Your task to perform on an android device: Show me popular games on the Play Store Image 0: 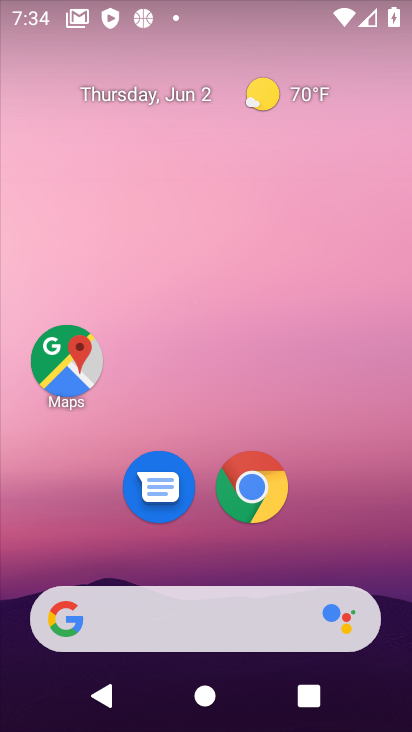
Step 0: drag from (216, 563) to (342, 74)
Your task to perform on an android device: Show me popular games on the Play Store Image 1: 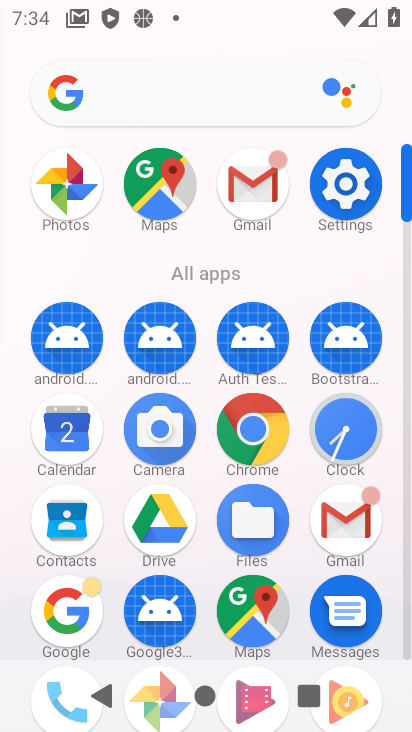
Step 1: drag from (121, 577) to (121, 123)
Your task to perform on an android device: Show me popular games on the Play Store Image 2: 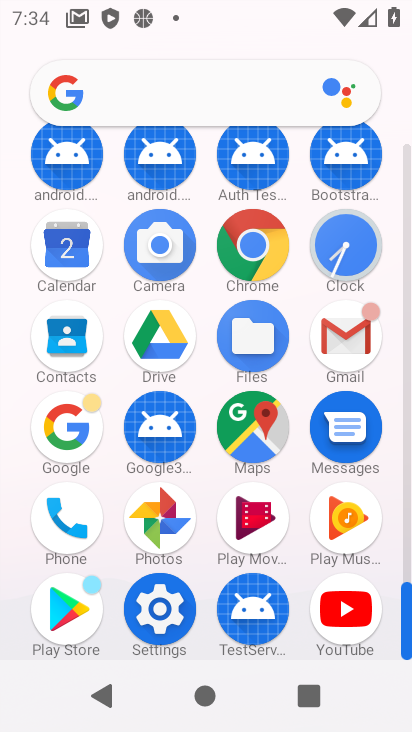
Step 2: click (53, 616)
Your task to perform on an android device: Show me popular games on the Play Store Image 3: 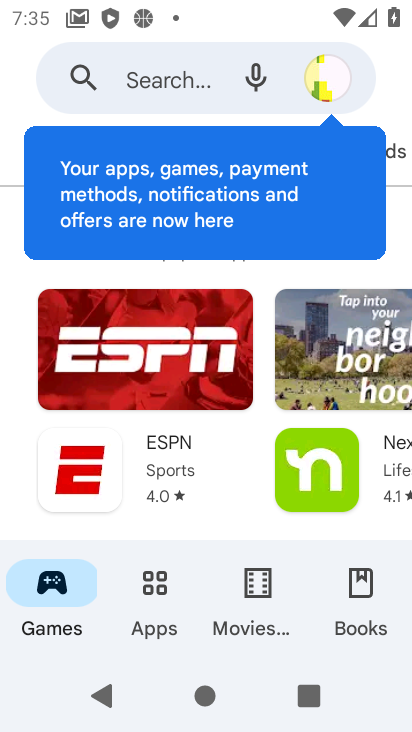
Step 3: click (162, 618)
Your task to perform on an android device: Show me popular games on the Play Store Image 4: 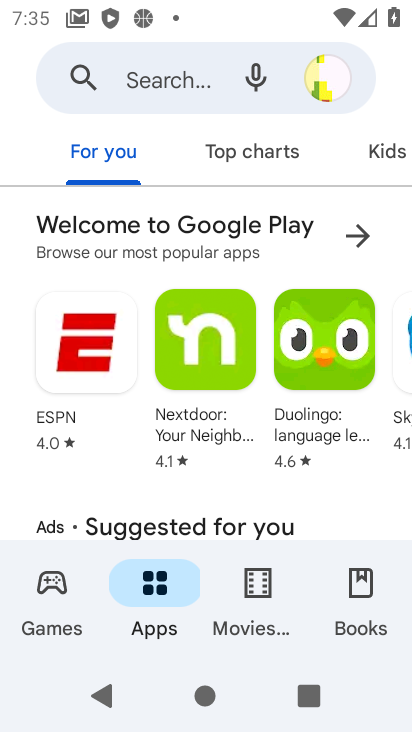
Step 4: drag from (297, 152) to (5, 130)
Your task to perform on an android device: Show me popular games on the Play Store Image 5: 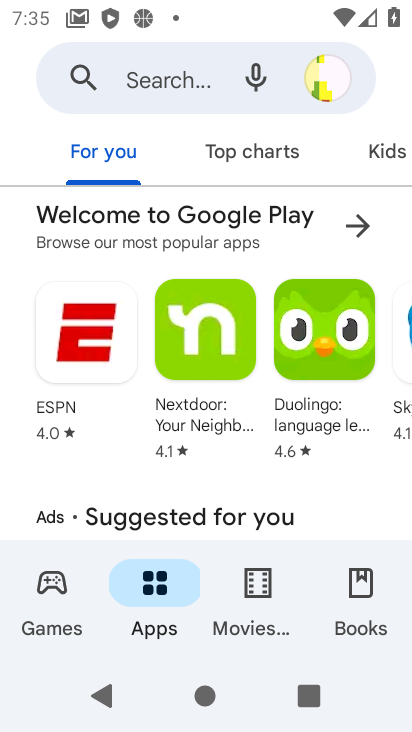
Step 5: click (60, 623)
Your task to perform on an android device: Show me popular games on the Play Store Image 6: 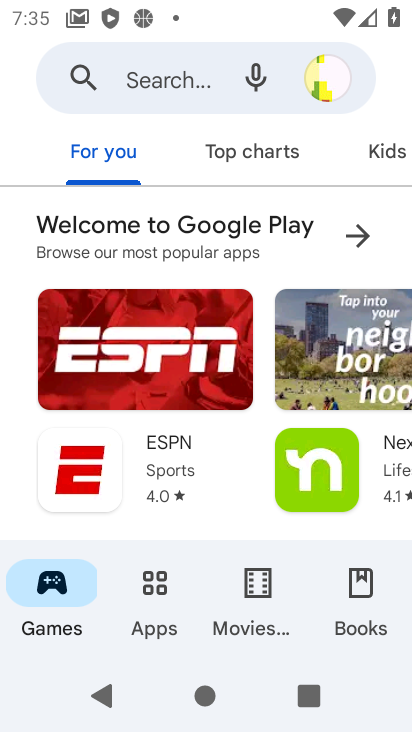
Step 6: drag from (124, 485) to (125, 18)
Your task to perform on an android device: Show me popular games on the Play Store Image 7: 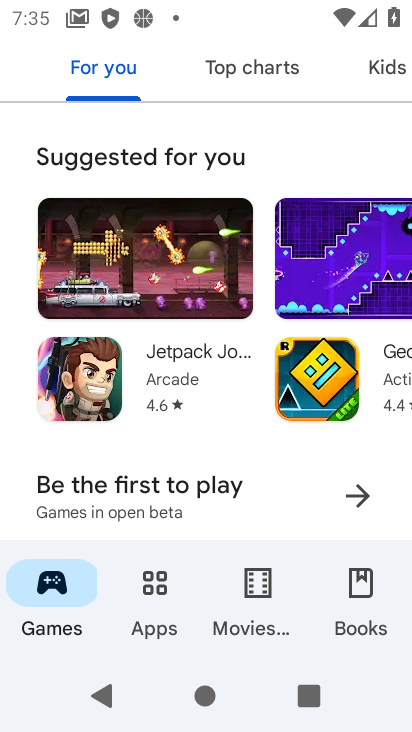
Step 7: drag from (191, 348) to (185, 6)
Your task to perform on an android device: Show me popular games on the Play Store Image 8: 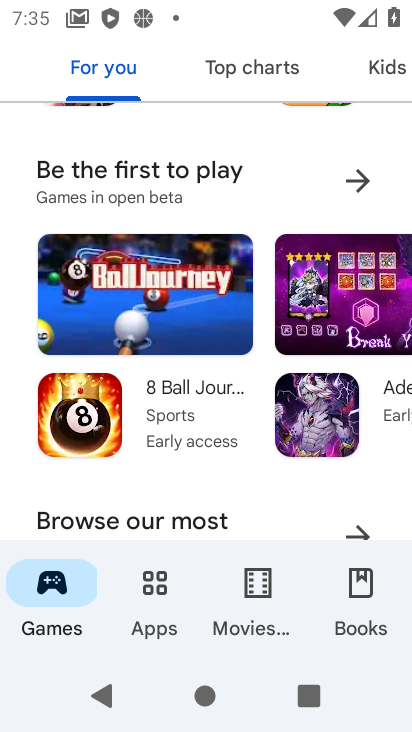
Step 8: drag from (198, 403) to (194, 114)
Your task to perform on an android device: Show me popular games on the Play Store Image 9: 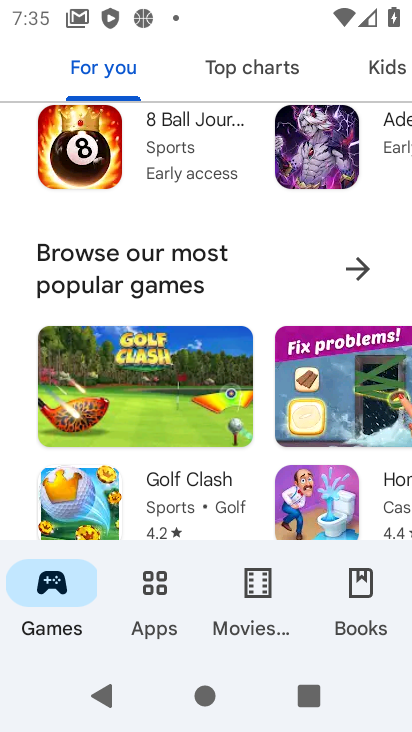
Step 9: click (351, 265)
Your task to perform on an android device: Show me popular games on the Play Store Image 10: 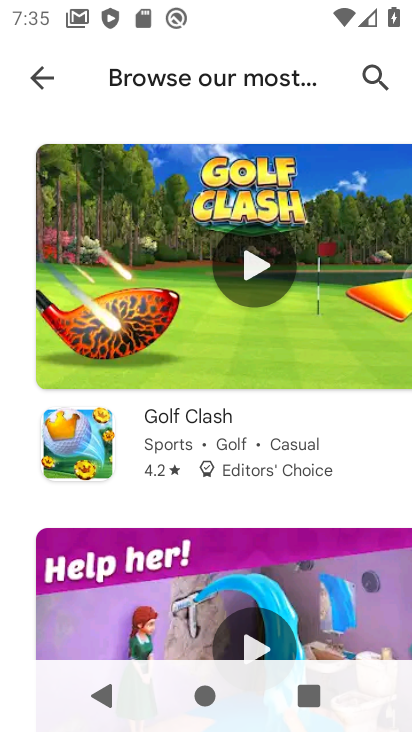
Step 10: task complete